Your task to perform on an android device: Go to calendar. Show me events next week Image 0: 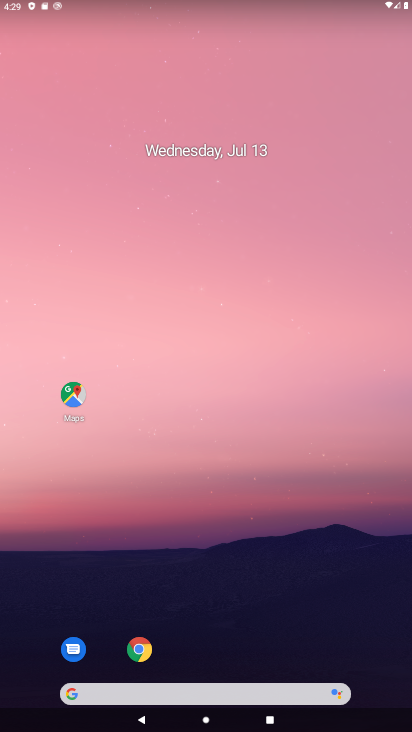
Step 0: drag from (261, 678) to (307, 7)
Your task to perform on an android device: Go to calendar. Show me events next week Image 1: 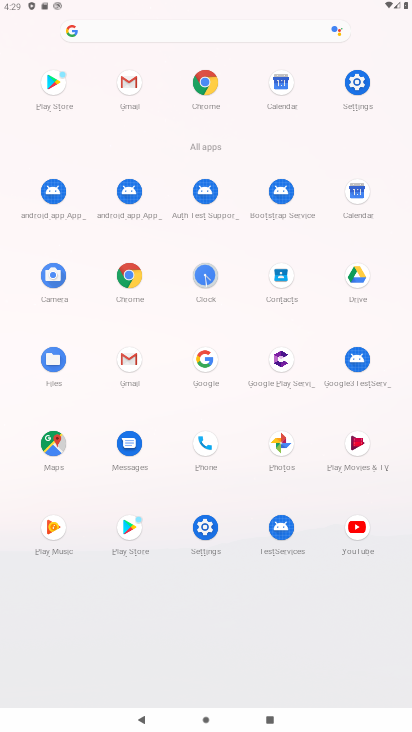
Step 1: click (363, 197)
Your task to perform on an android device: Go to calendar. Show me events next week Image 2: 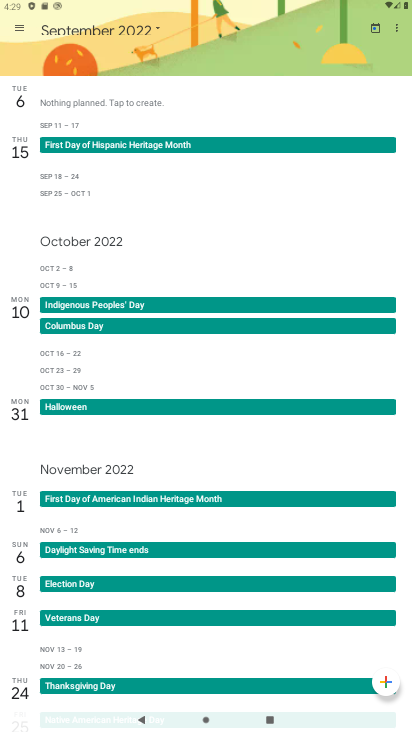
Step 2: click (100, 29)
Your task to perform on an android device: Go to calendar. Show me events next week Image 3: 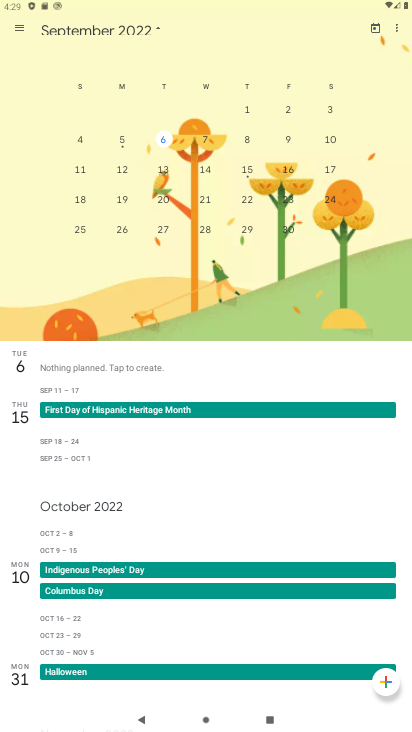
Step 3: click (206, 175)
Your task to perform on an android device: Go to calendar. Show me events next week Image 4: 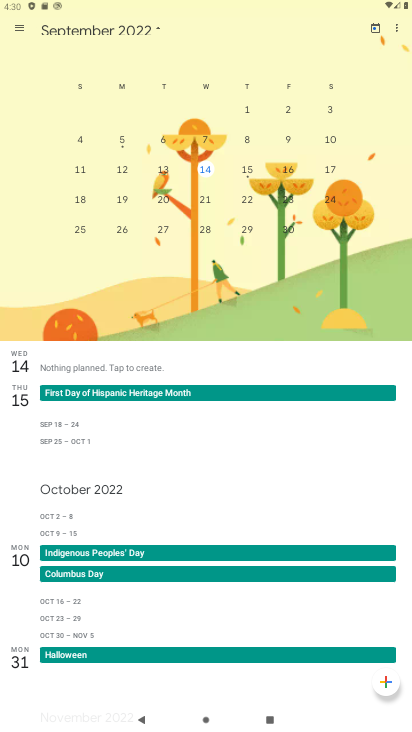
Step 4: task complete